Your task to perform on an android device: Open the stopwatch Image 0: 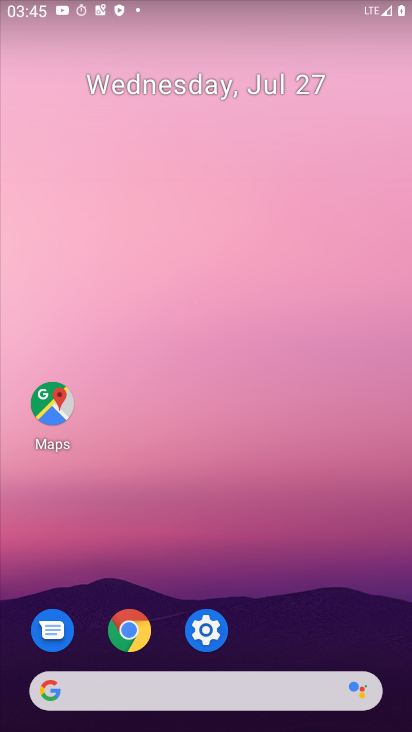
Step 0: click (157, 141)
Your task to perform on an android device: Open the stopwatch Image 1: 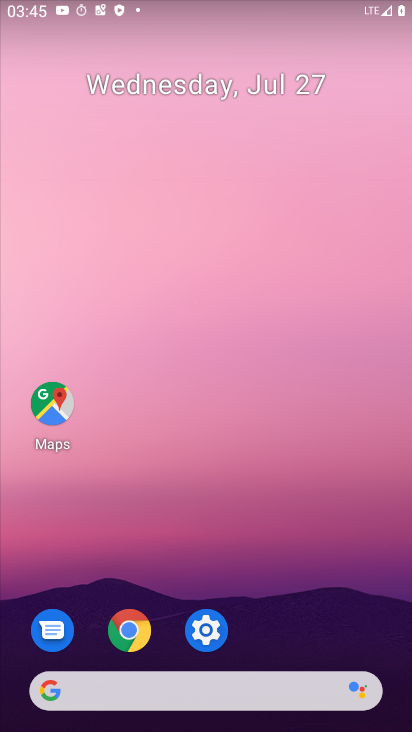
Step 1: click (239, 96)
Your task to perform on an android device: Open the stopwatch Image 2: 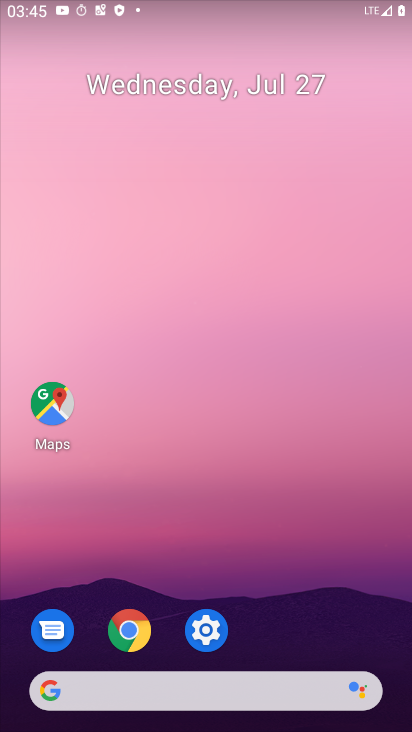
Step 2: drag from (251, 78) to (246, 3)
Your task to perform on an android device: Open the stopwatch Image 3: 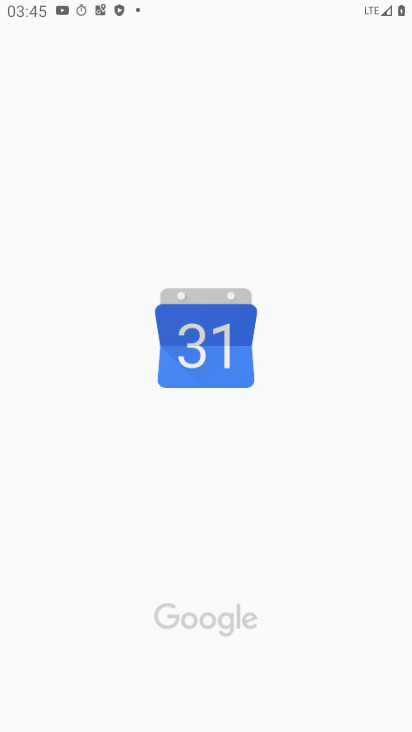
Step 3: drag from (240, 447) to (223, 161)
Your task to perform on an android device: Open the stopwatch Image 4: 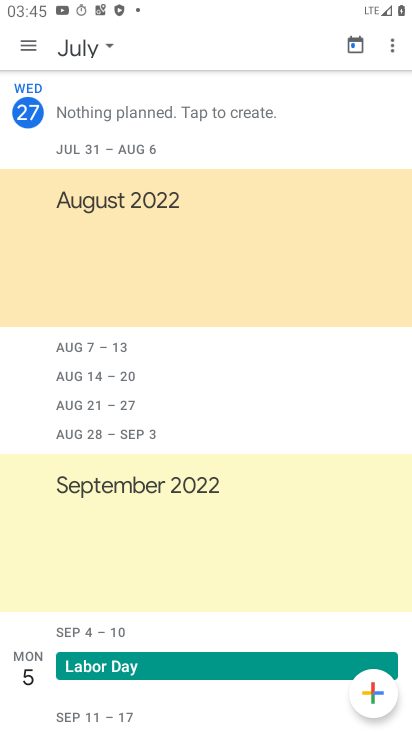
Step 4: drag from (228, 485) to (194, 111)
Your task to perform on an android device: Open the stopwatch Image 5: 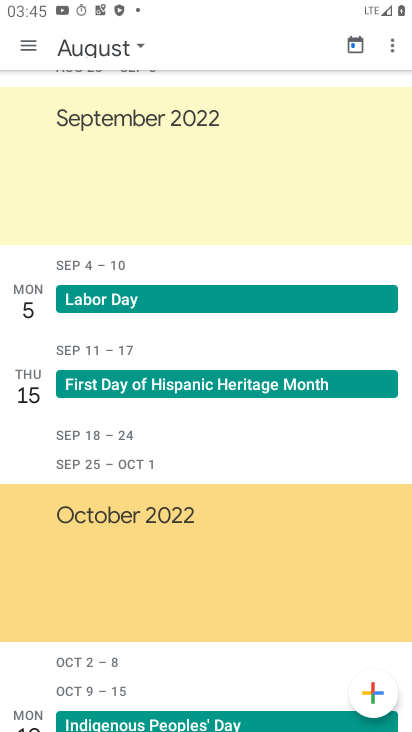
Step 5: drag from (268, 395) to (263, 146)
Your task to perform on an android device: Open the stopwatch Image 6: 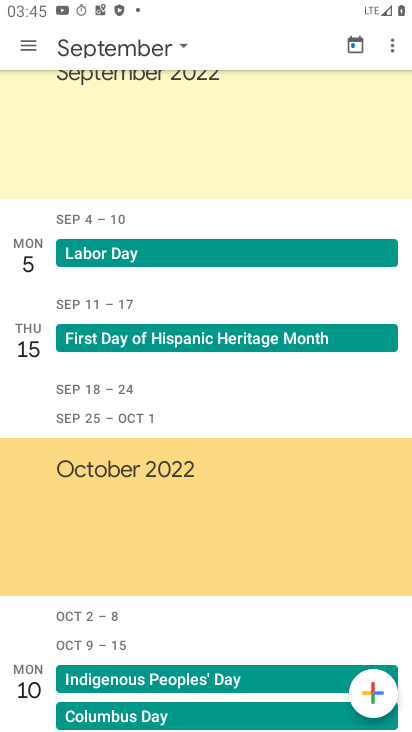
Step 6: press back button
Your task to perform on an android device: Open the stopwatch Image 7: 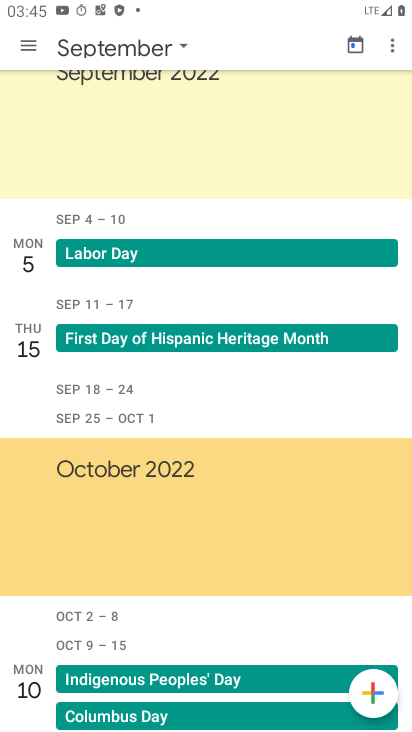
Step 7: press back button
Your task to perform on an android device: Open the stopwatch Image 8: 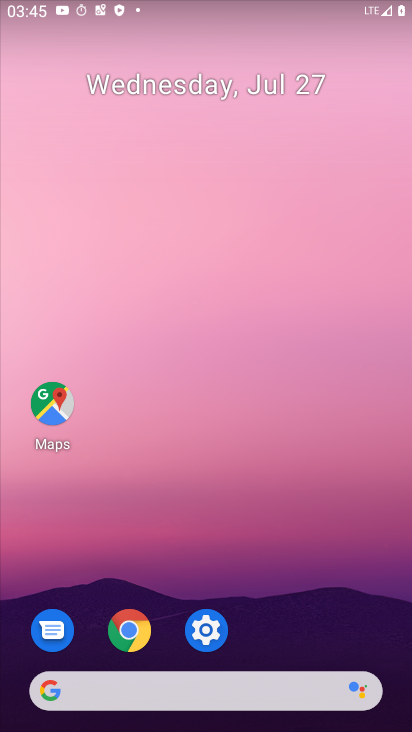
Step 8: drag from (209, 520) to (177, 71)
Your task to perform on an android device: Open the stopwatch Image 9: 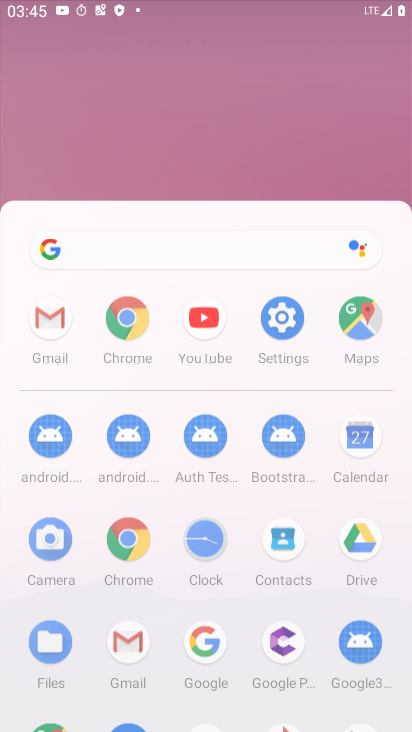
Step 9: drag from (242, 326) to (256, 4)
Your task to perform on an android device: Open the stopwatch Image 10: 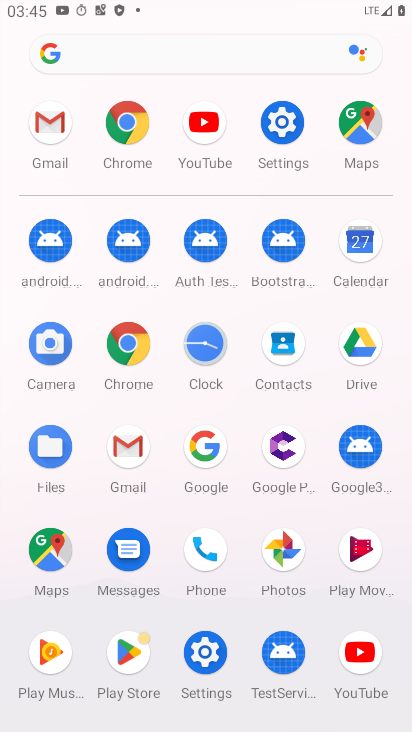
Step 10: click (202, 342)
Your task to perform on an android device: Open the stopwatch Image 11: 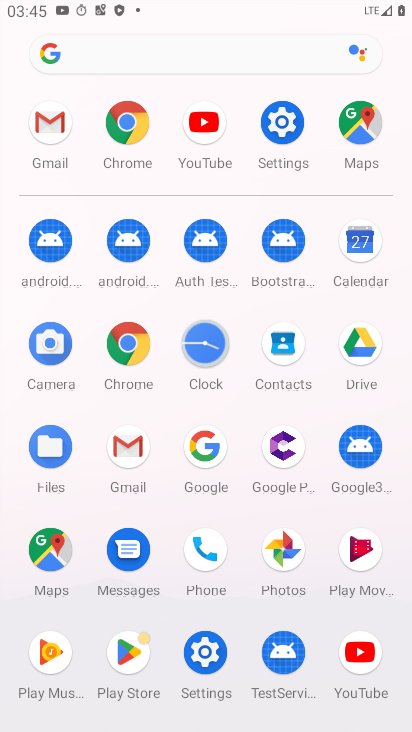
Step 11: click (202, 342)
Your task to perform on an android device: Open the stopwatch Image 12: 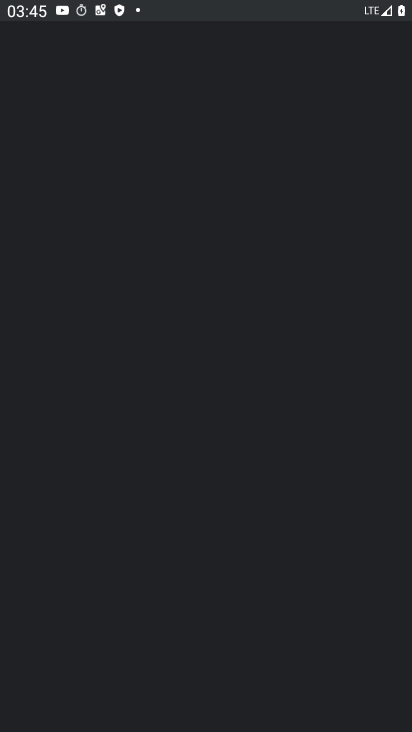
Step 12: click (203, 344)
Your task to perform on an android device: Open the stopwatch Image 13: 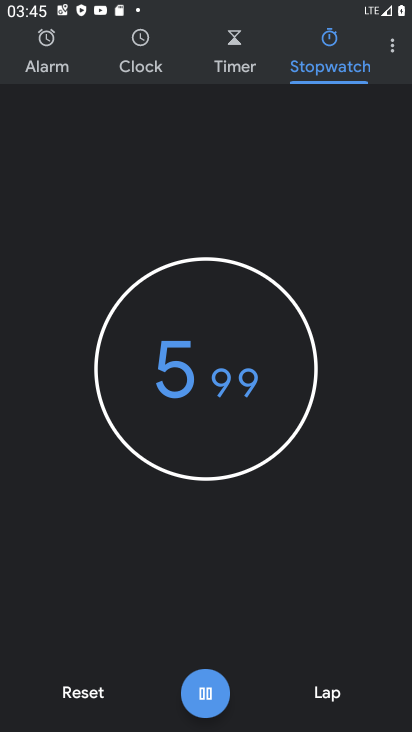
Step 13: click (208, 694)
Your task to perform on an android device: Open the stopwatch Image 14: 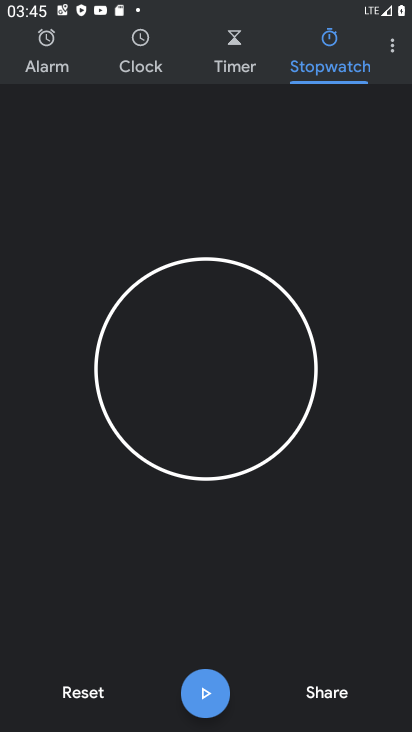
Step 14: task complete